Your task to perform on an android device: What is the price of a 12' ladder at Home Depot? Image 0: 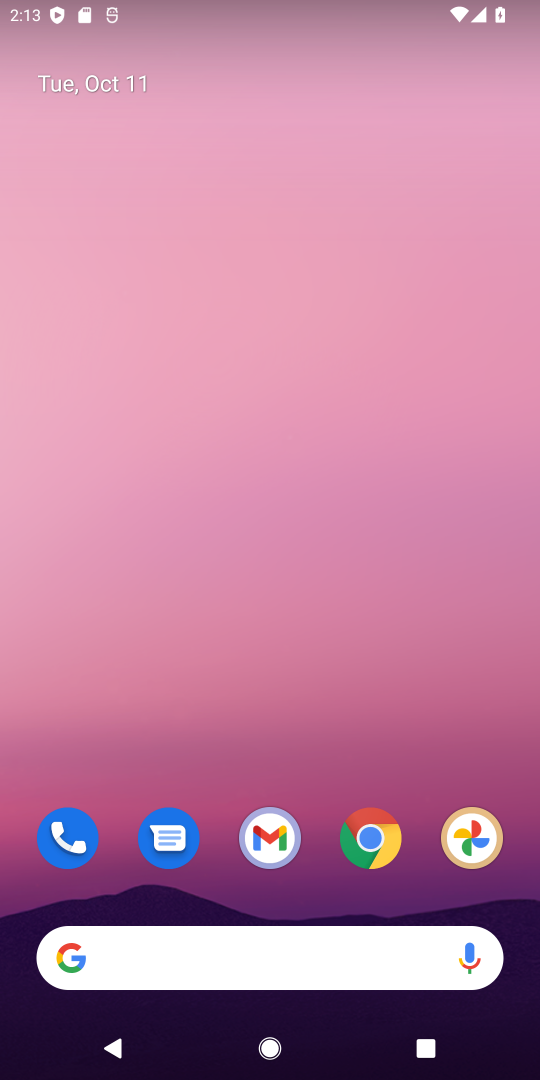
Step 0: click (389, 846)
Your task to perform on an android device: What is the price of a 12' ladder at Home Depot? Image 1: 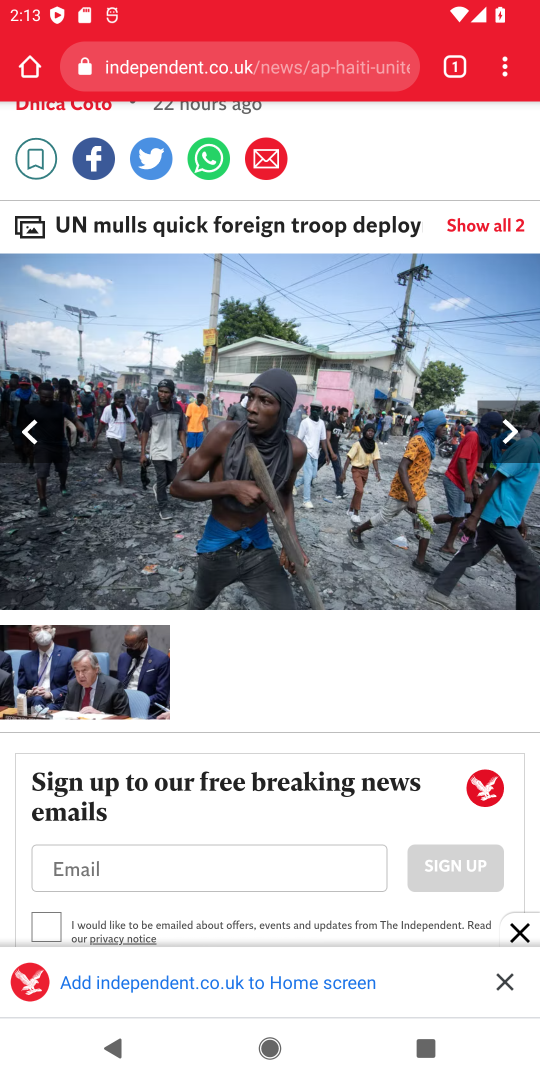
Step 1: click (157, 56)
Your task to perform on an android device: What is the price of a 12' ladder at Home Depot? Image 2: 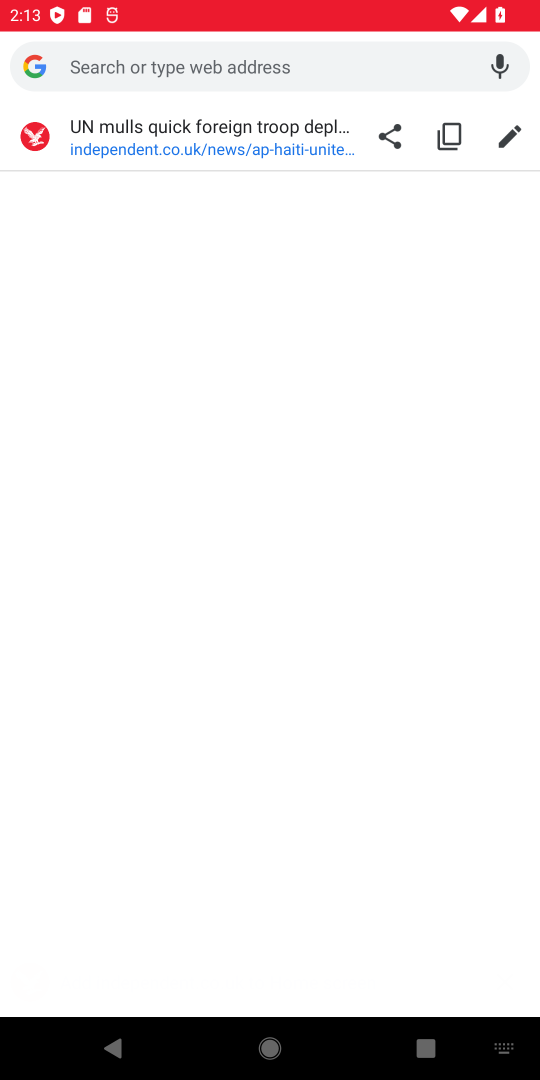
Step 2: type "home depot"
Your task to perform on an android device: What is the price of a 12' ladder at Home Depot? Image 3: 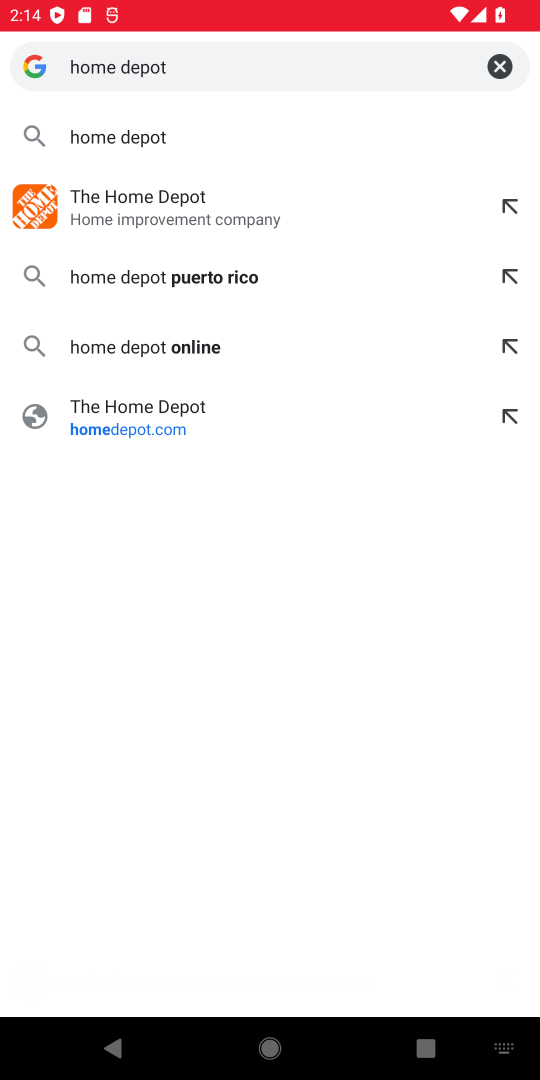
Step 3: click (186, 207)
Your task to perform on an android device: What is the price of a 12' ladder at Home Depot? Image 4: 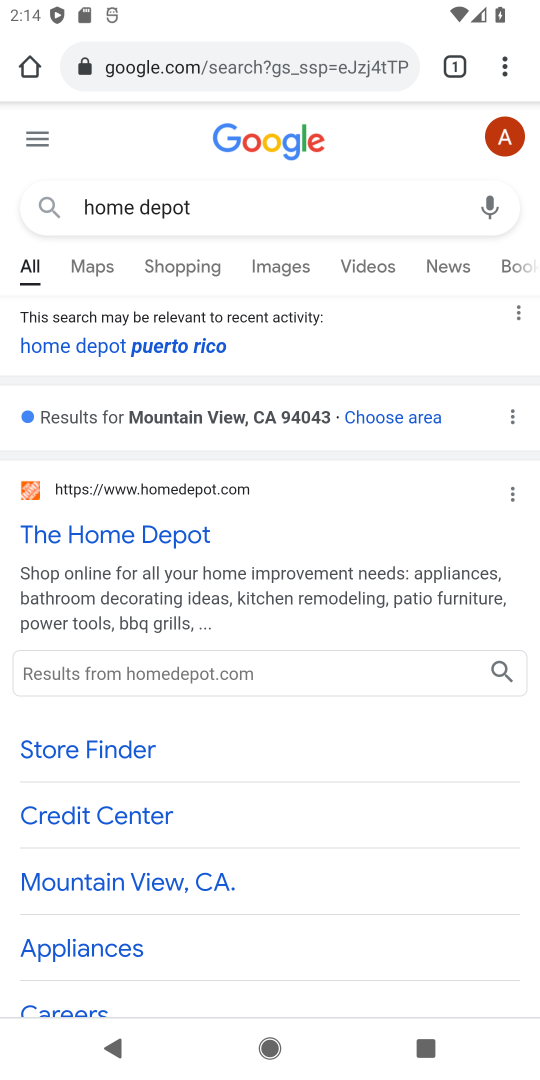
Step 4: click (102, 536)
Your task to perform on an android device: What is the price of a 12' ladder at Home Depot? Image 5: 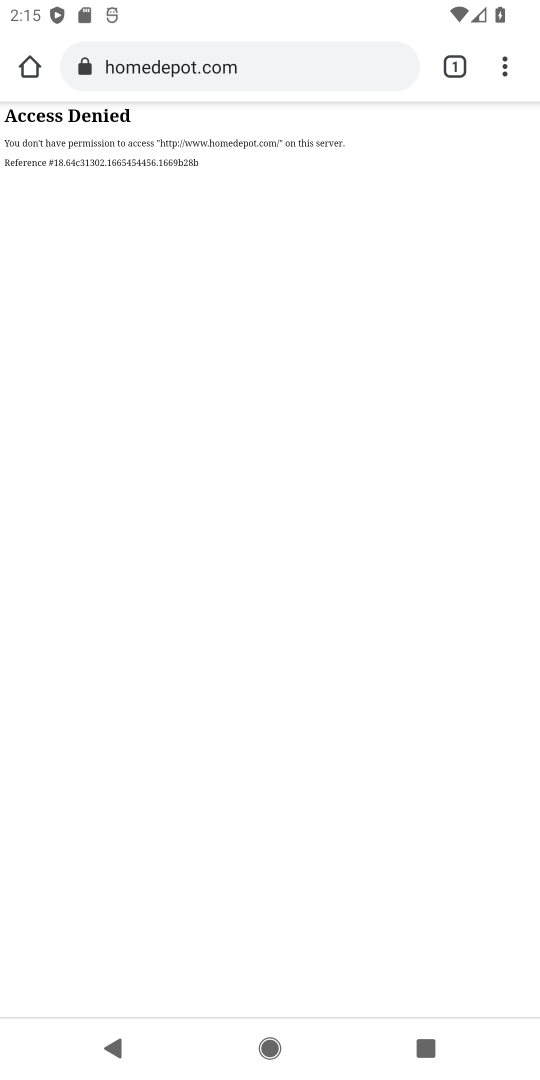
Step 5: task complete